Your task to perform on an android device: Open Wikipedia Image 0: 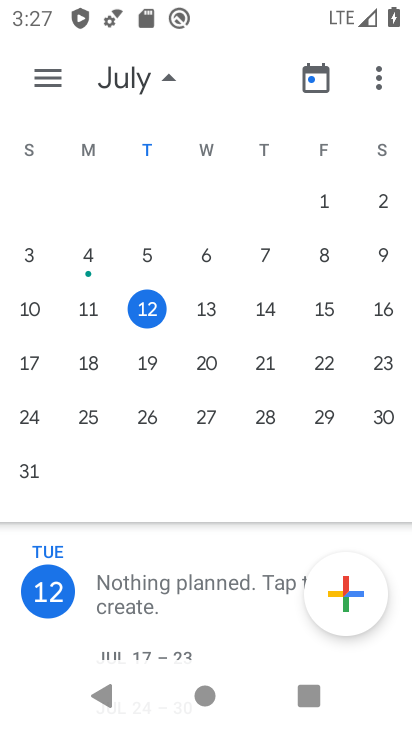
Step 0: press home button
Your task to perform on an android device: Open Wikipedia Image 1: 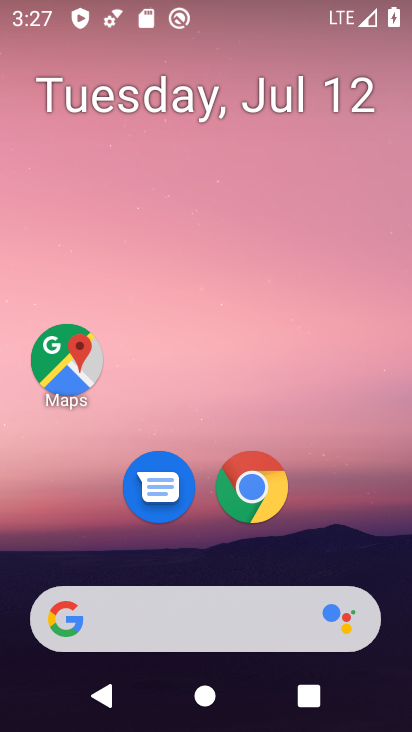
Step 1: drag from (169, 639) to (268, 45)
Your task to perform on an android device: Open Wikipedia Image 2: 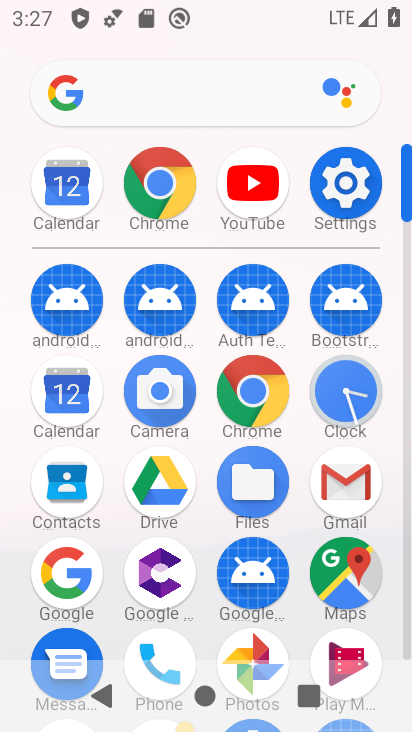
Step 2: click (179, 194)
Your task to perform on an android device: Open Wikipedia Image 3: 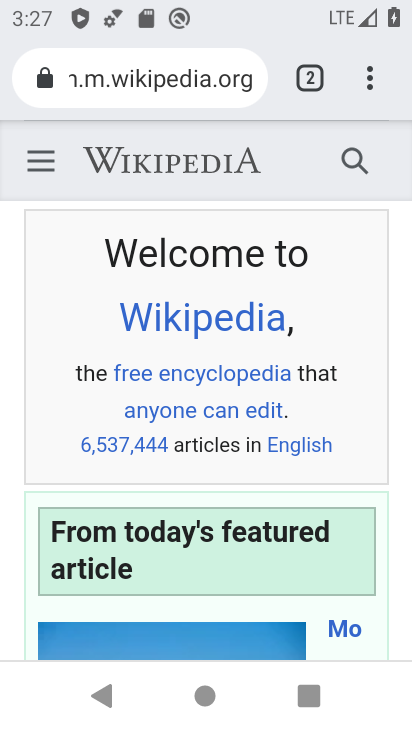
Step 3: task complete